Your task to perform on an android device: open chrome and create a bookmark for the current page Image 0: 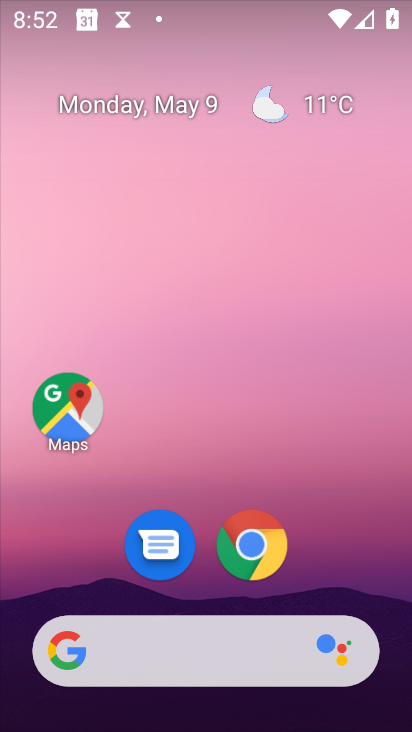
Step 0: click (252, 540)
Your task to perform on an android device: open chrome and create a bookmark for the current page Image 1: 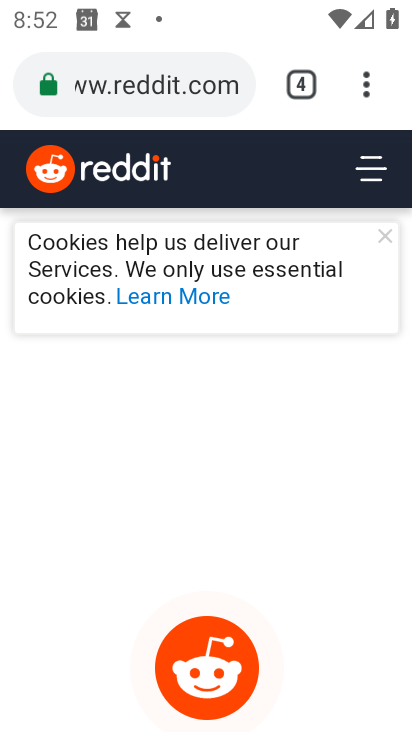
Step 1: click (368, 91)
Your task to perform on an android device: open chrome and create a bookmark for the current page Image 2: 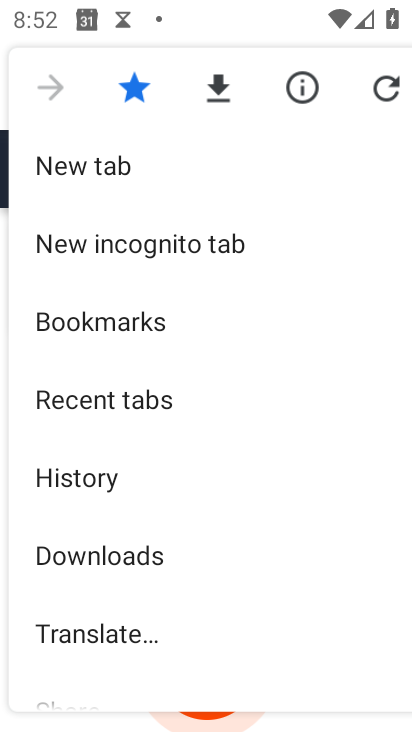
Step 2: click (139, 82)
Your task to perform on an android device: open chrome and create a bookmark for the current page Image 3: 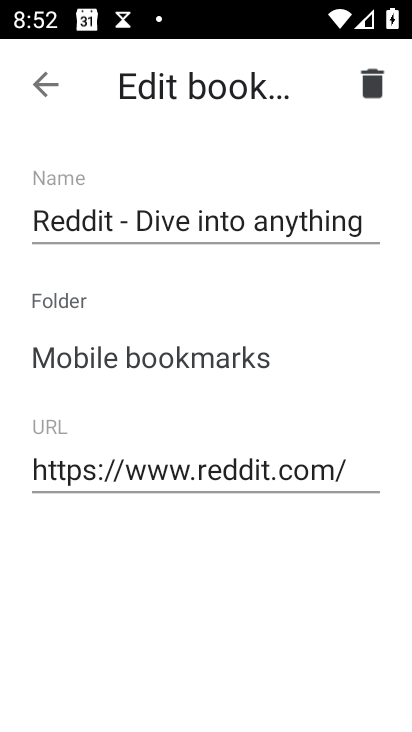
Step 3: click (38, 78)
Your task to perform on an android device: open chrome and create a bookmark for the current page Image 4: 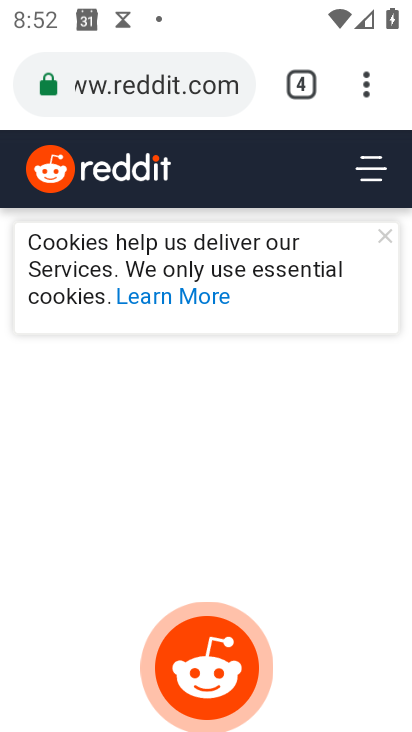
Step 4: task complete